Your task to perform on an android device: set the timer Image 0: 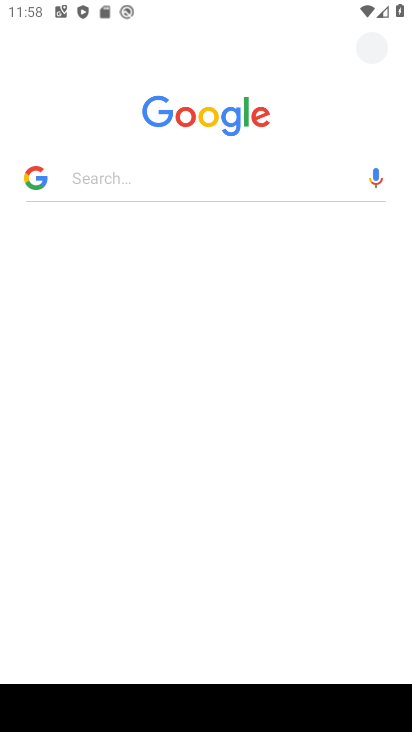
Step 0: press home button
Your task to perform on an android device: set the timer Image 1: 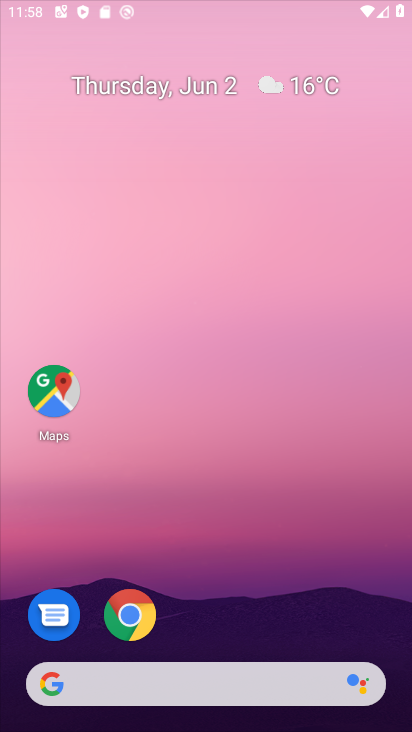
Step 1: drag from (257, 550) to (288, 213)
Your task to perform on an android device: set the timer Image 2: 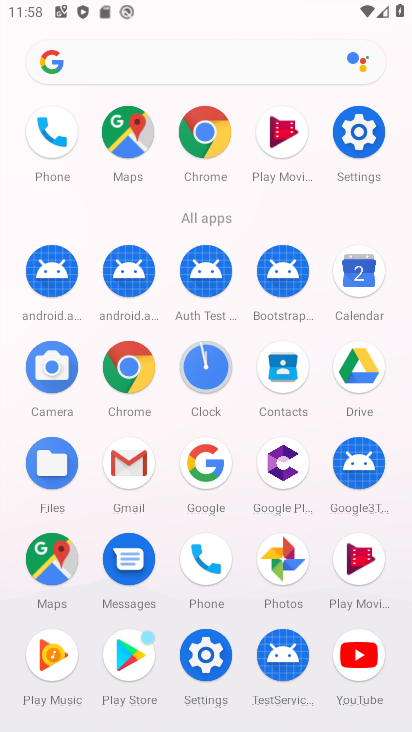
Step 2: click (200, 360)
Your task to perform on an android device: set the timer Image 3: 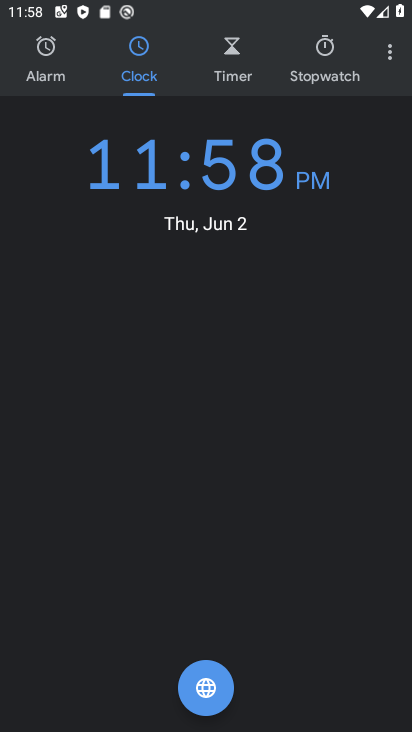
Step 3: click (310, 46)
Your task to perform on an android device: set the timer Image 4: 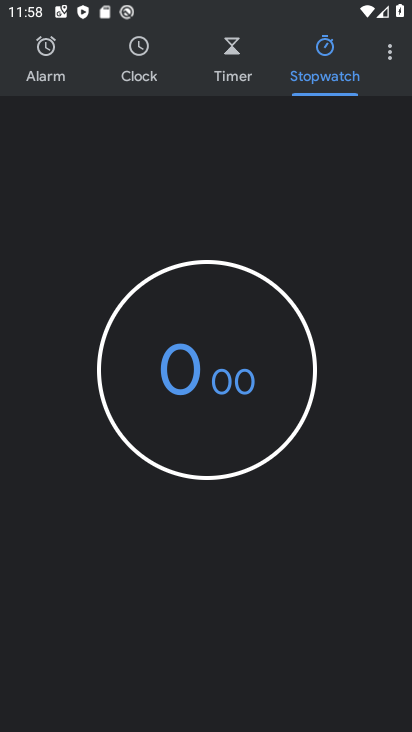
Step 4: click (185, 56)
Your task to perform on an android device: set the timer Image 5: 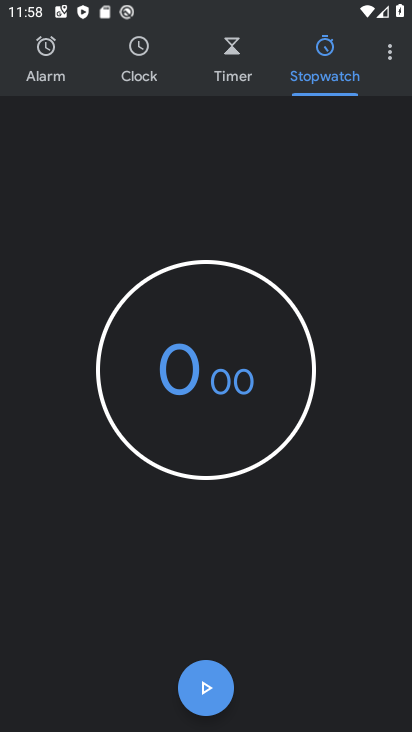
Step 5: click (208, 51)
Your task to perform on an android device: set the timer Image 6: 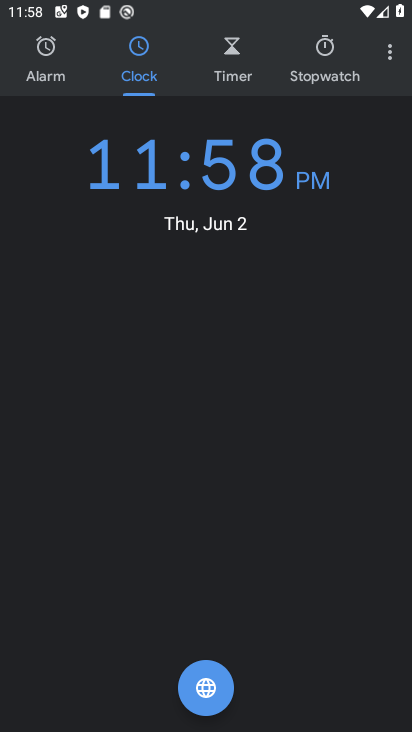
Step 6: click (235, 39)
Your task to perform on an android device: set the timer Image 7: 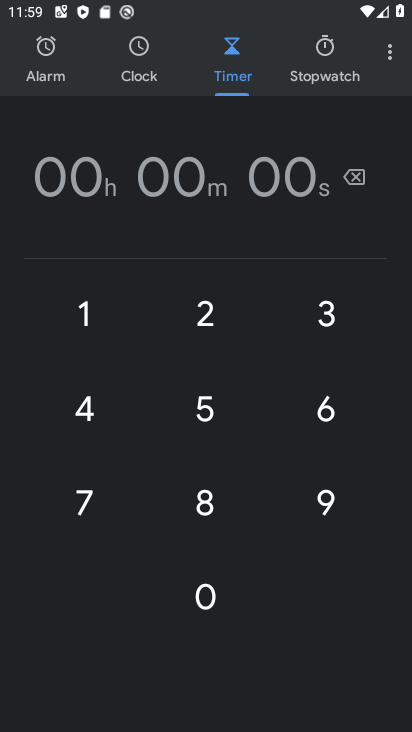
Step 7: click (175, 188)
Your task to perform on an android device: set the timer Image 8: 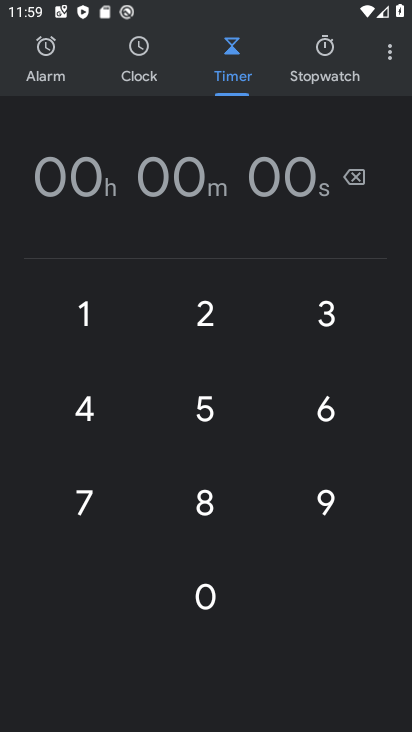
Step 8: type "87878878787878"
Your task to perform on an android device: set the timer Image 9: 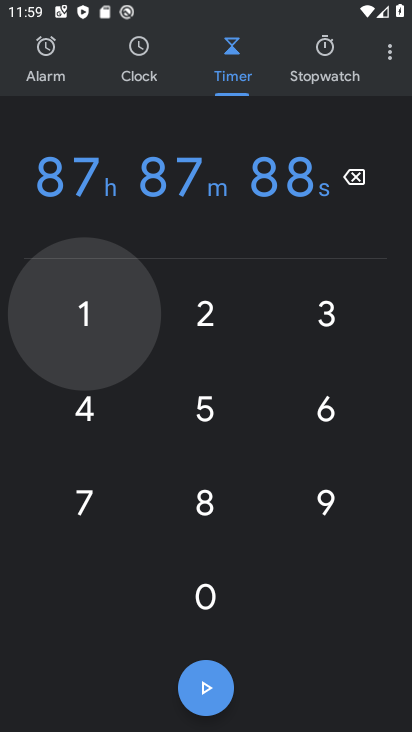
Step 9: task complete